Your task to perform on an android device: Open Google Maps and go to "Timeline" Image 0: 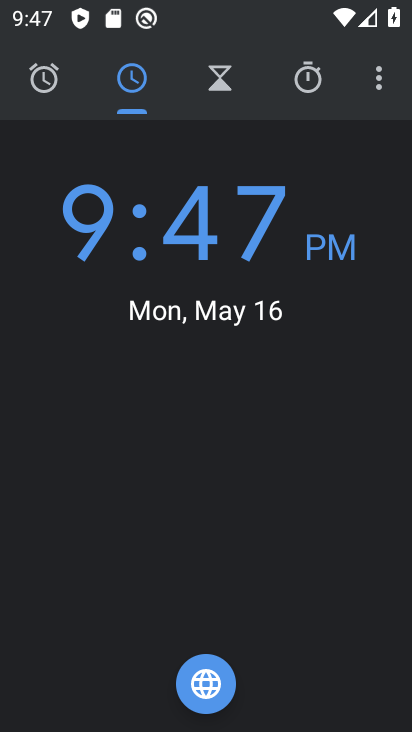
Step 0: press home button
Your task to perform on an android device: Open Google Maps and go to "Timeline" Image 1: 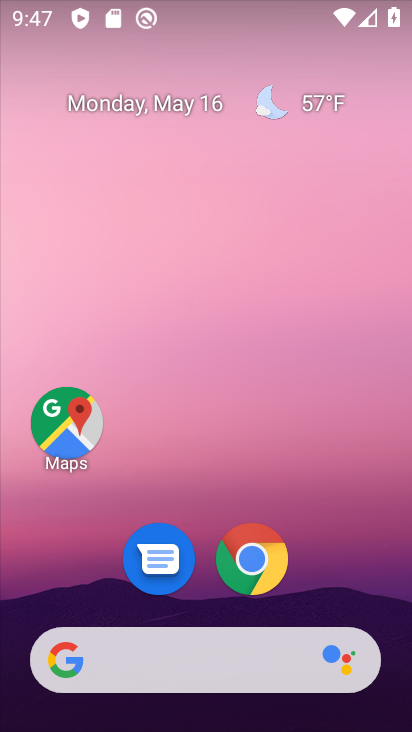
Step 1: click (83, 430)
Your task to perform on an android device: Open Google Maps and go to "Timeline" Image 2: 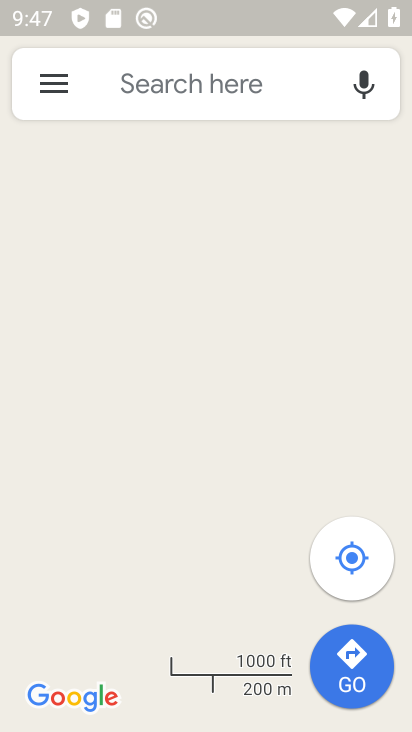
Step 2: click (62, 72)
Your task to perform on an android device: Open Google Maps and go to "Timeline" Image 3: 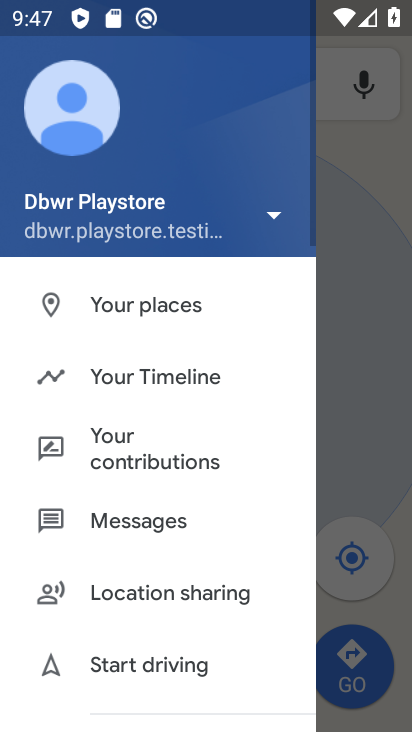
Step 3: click (175, 379)
Your task to perform on an android device: Open Google Maps and go to "Timeline" Image 4: 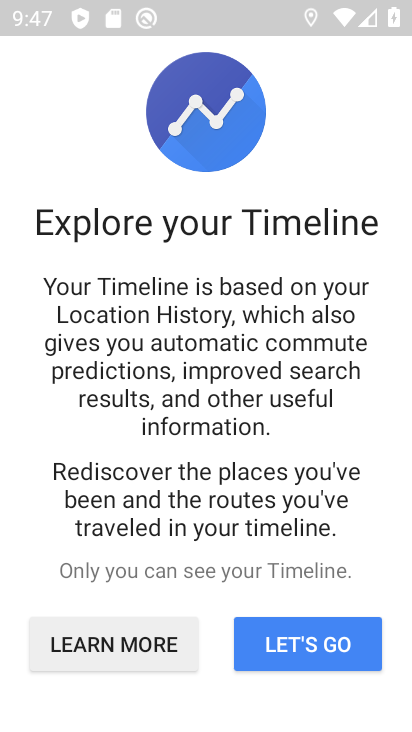
Step 4: click (287, 634)
Your task to perform on an android device: Open Google Maps and go to "Timeline" Image 5: 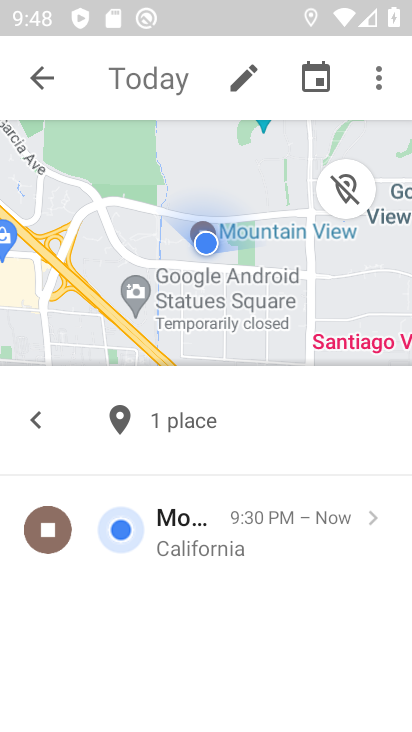
Step 5: task complete